Your task to perform on an android device: open sync settings in chrome Image 0: 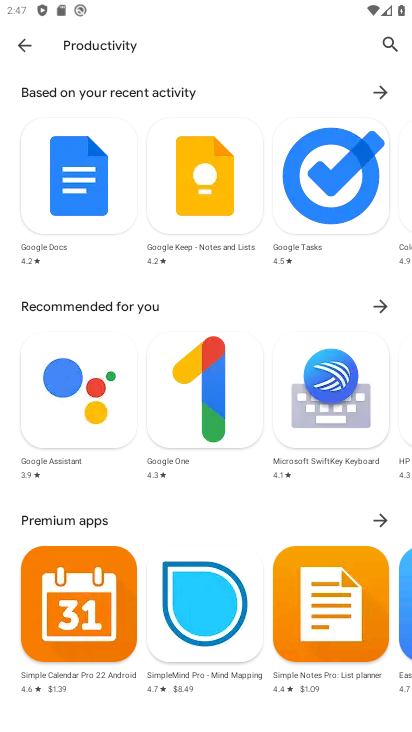
Step 0: press home button
Your task to perform on an android device: open sync settings in chrome Image 1: 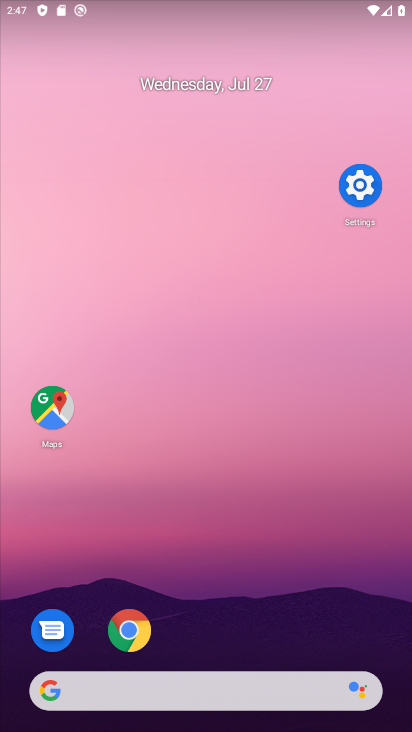
Step 1: drag from (213, 642) to (285, 1)
Your task to perform on an android device: open sync settings in chrome Image 2: 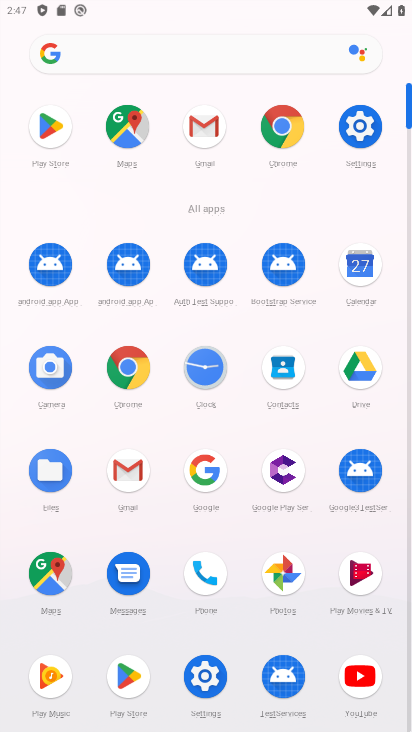
Step 2: click (296, 146)
Your task to perform on an android device: open sync settings in chrome Image 3: 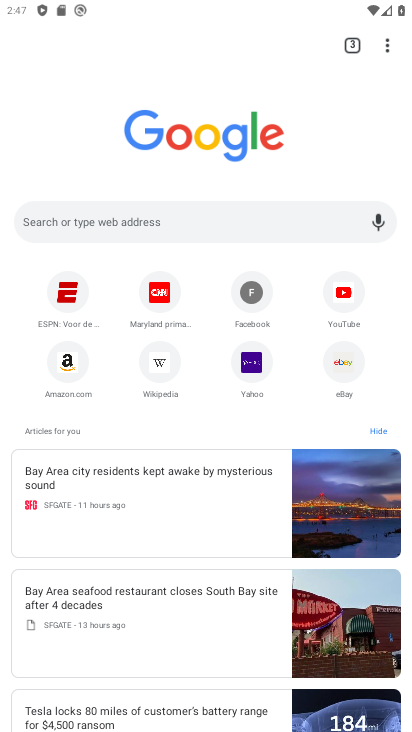
Step 3: drag from (389, 40) to (210, 420)
Your task to perform on an android device: open sync settings in chrome Image 4: 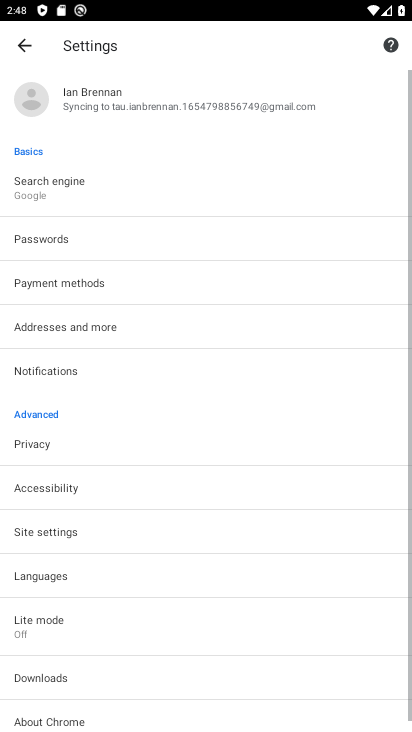
Step 4: click (140, 113)
Your task to perform on an android device: open sync settings in chrome Image 5: 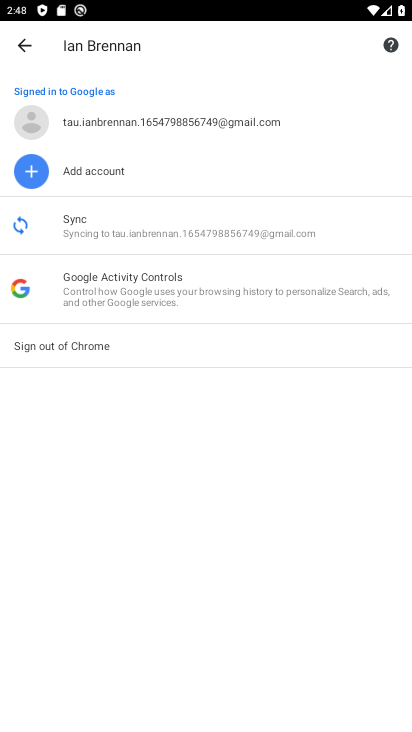
Step 5: click (78, 238)
Your task to perform on an android device: open sync settings in chrome Image 6: 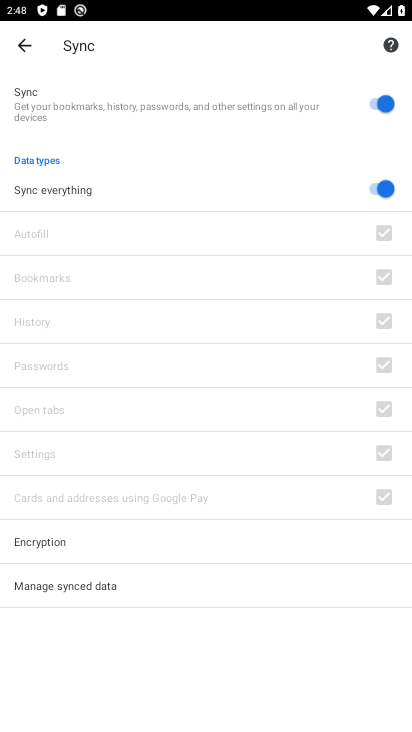
Step 6: task complete